Your task to perform on an android device: Set the phone to "Do not disturb". Image 0: 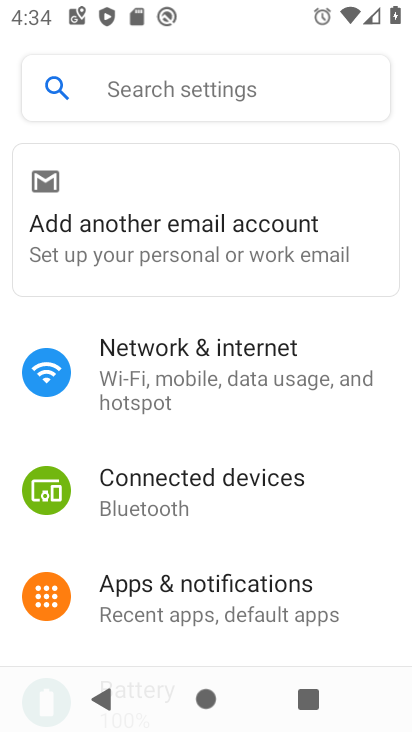
Step 0: drag from (236, 575) to (290, 216)
Your task to perform on an android device: Set the phone to "Do not disturb". Image 1: 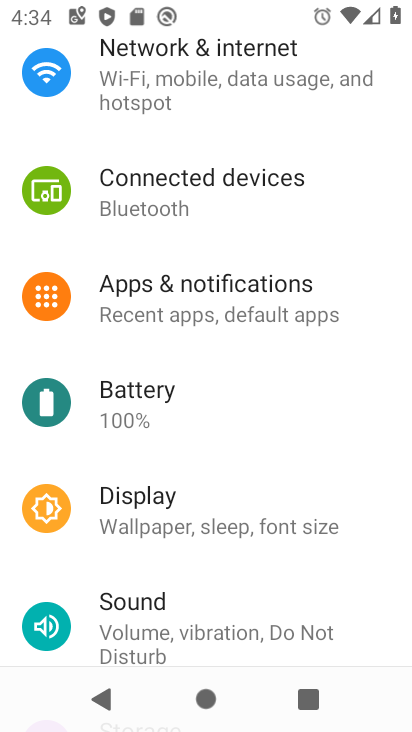
Step 1: drag from (274, 445) to (319, 172)
Your task to perform on an android device: Set the phone to "Do not disturb". Image 2: 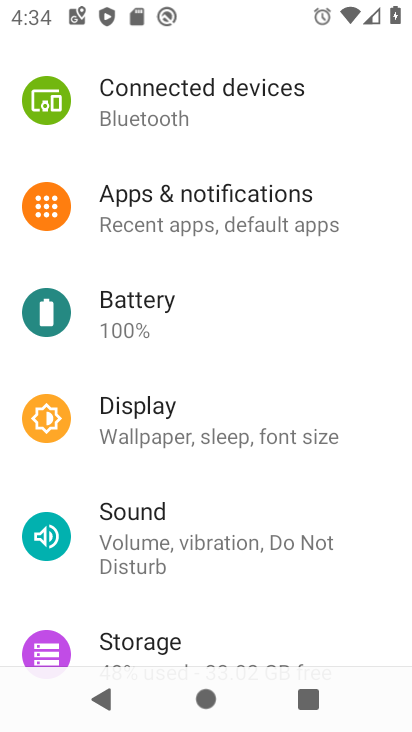
Step 2: click (200, 527)
Your task to perform on an android device: Set the phone to "Do not disturb". Image 3: 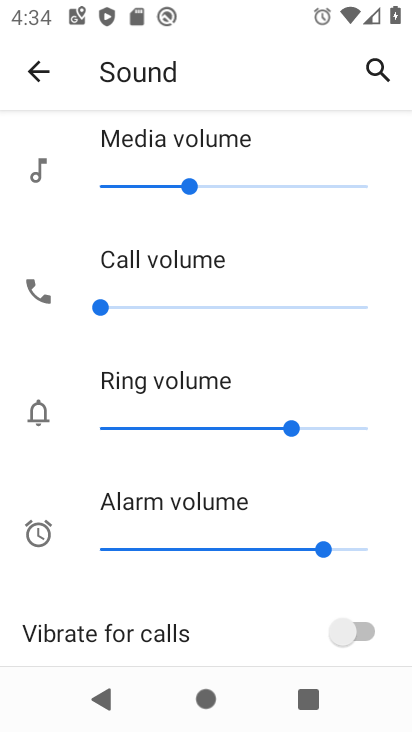
Step 3: drag from (202, 558) to (212, 122)
Your task to perform on an android device: Set the phone to "Do not disturb". Image 4: 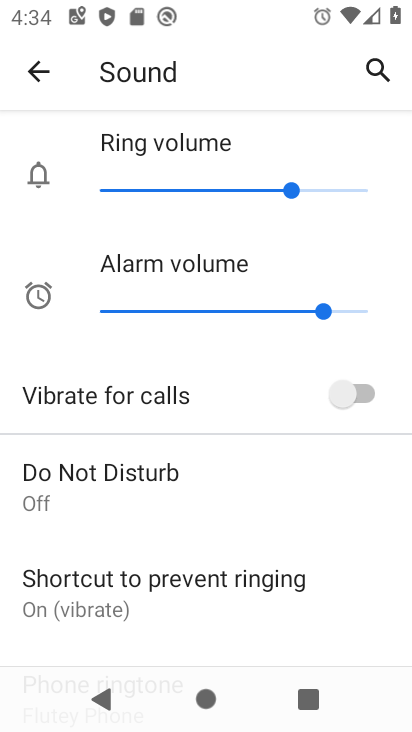
Step 4: drag from (228, 546) to (268, 176)
Your task to perform on an android device: Set the phone to "Do not disturb". Image 5: 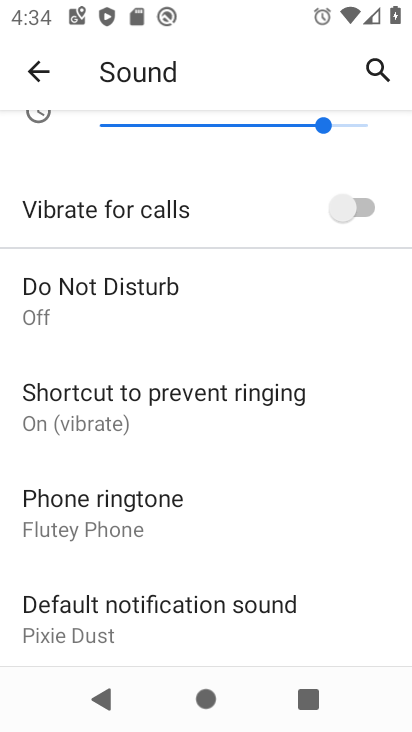
Step 5: click (95, 301)
Your task to perform on an android device: Set the phone to "Do not disturb". Image 6: 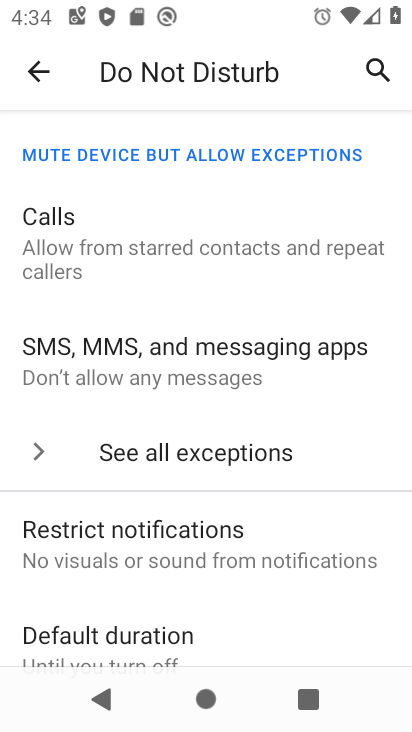
Step 6: drag from (213, 588) to (150, 255)
Your task to perform on an android device: Set the phone to "Do not disturb". Image 7: 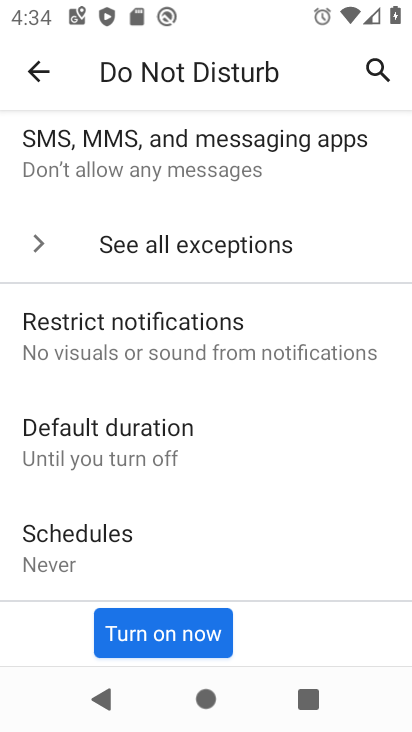
Step 7: drag from (221, 555) to (222, 221)
Your task to perform on an android device: Set the phone to "Do not disturb". Image 8: 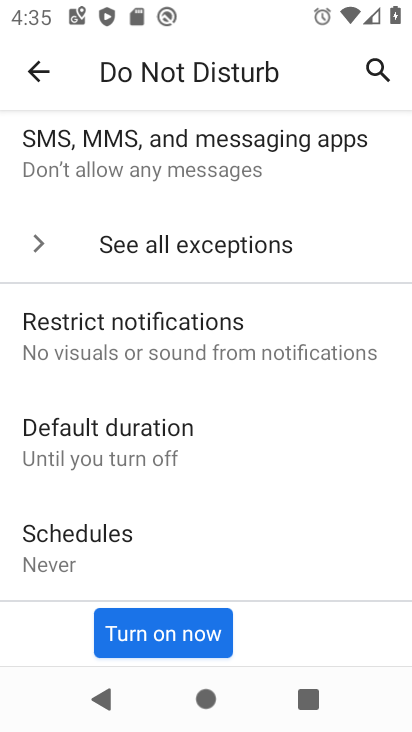
Step 8: click (215, 636)
Your task to perform on an android device: Set the phone to "Do not disturb". Image 9: 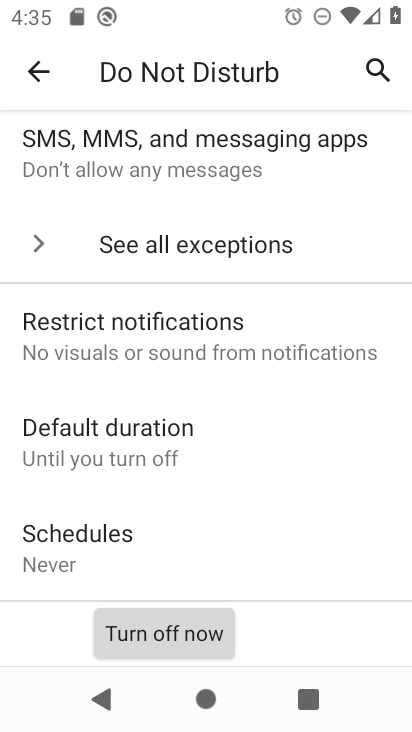
Step 9: task complete